Your task to perform on an android device: open the mobile data screen to see how much data has been used Image 0: 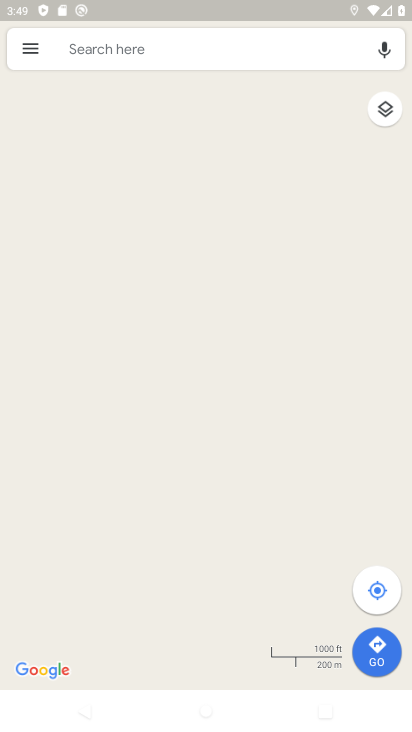
Step 0: press back button
Your task to perform on an android device: open the mobile data screen to see how much data has been used Image 1: 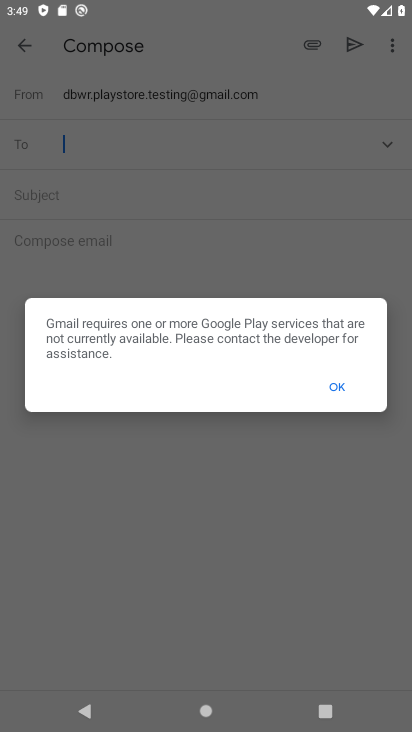
Step 1: task complete